Your task to perform on an android device: Open the map Image 0: 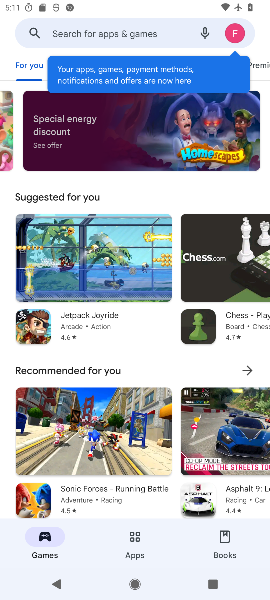
Step 0: press home button
Your task to perform on an android device: Open the map Image 1: 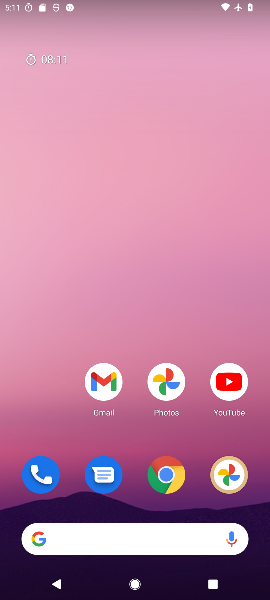
Step 1: drag from (48, 429) to (62, 152)
Your task to perform on an android device: Open the map Image 2: 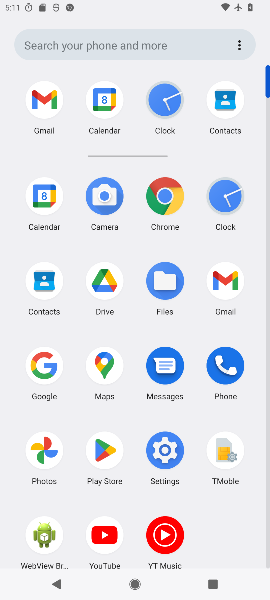
Step 2: click (110, 362)
Your task to perform on an android device: Open the map Image 3: 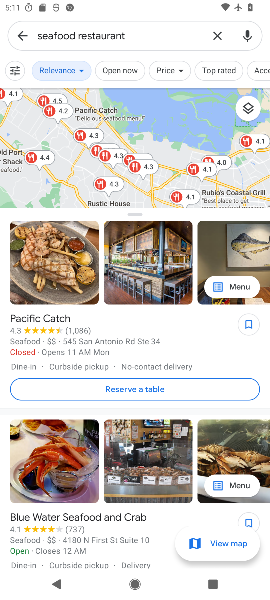
Step 3: task complete